Your task to perform on an android device: Search for pizza restaurants on Maps Image 0: 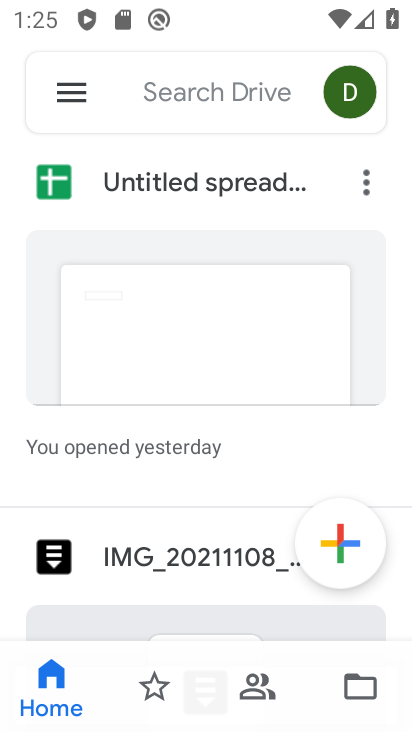
Step 0: press back button
Your task to perform on an android device: Search for pizza restaurants on Maps Image 1: 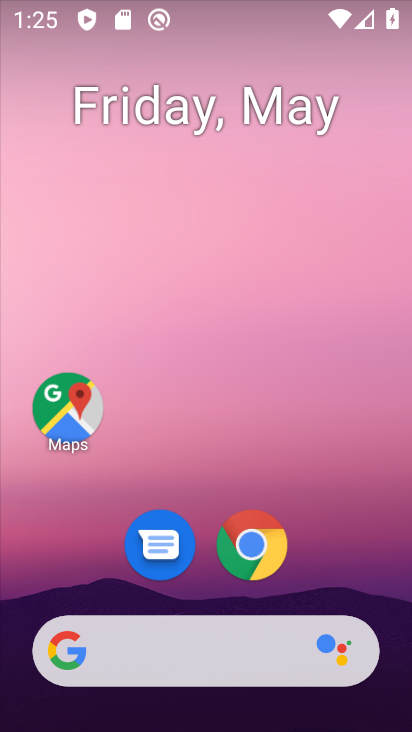
Step 1: drag from (337, 620) to (218, 43)
Your task to perform on an android device: Search for pizza restaurants on Maps Image 2: 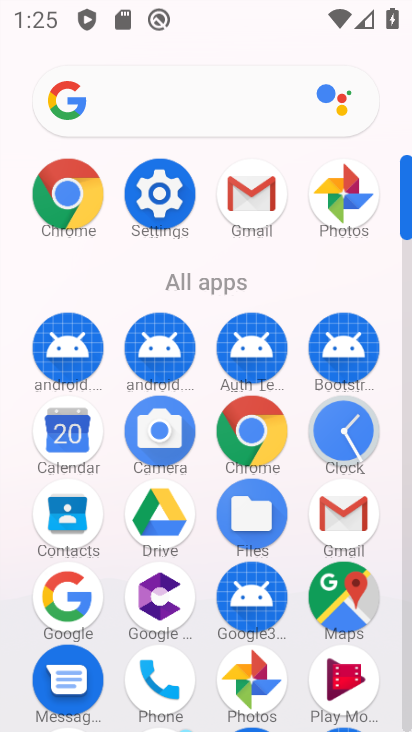
Step 2: click (335, 590)
Your task to perform on an android device: Search for pizza restaurants on Maps Image 3: 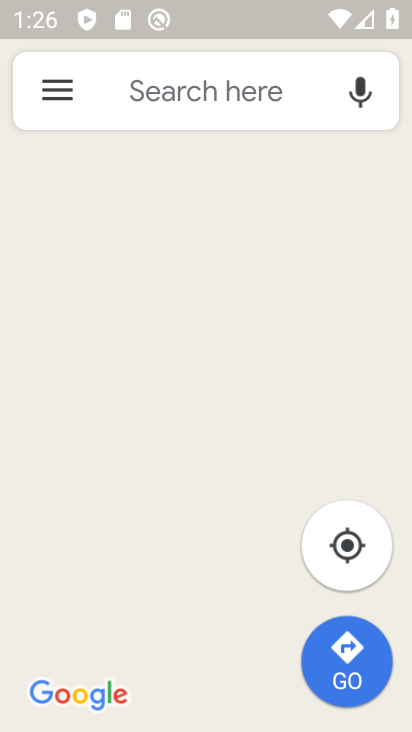
Step 3: drag from (193, 601) to (174, 83)
Your task to perform on an android device: Search for pizza restaurants on Maps Image 4: 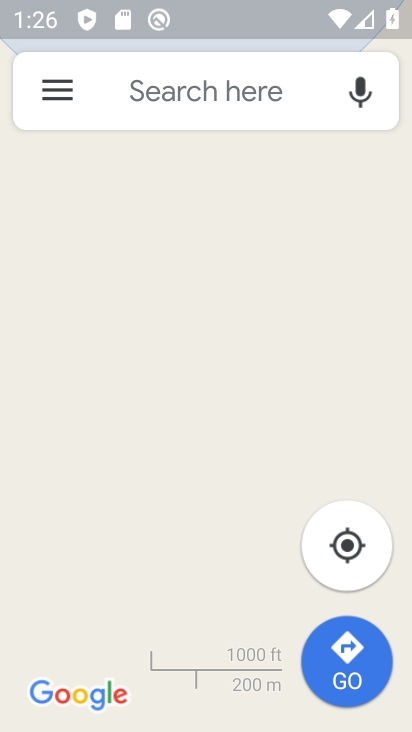
Step 4: click (123, 78)
Your task to perform on an android device: Search for pizza restaurants on Maps Image 5: 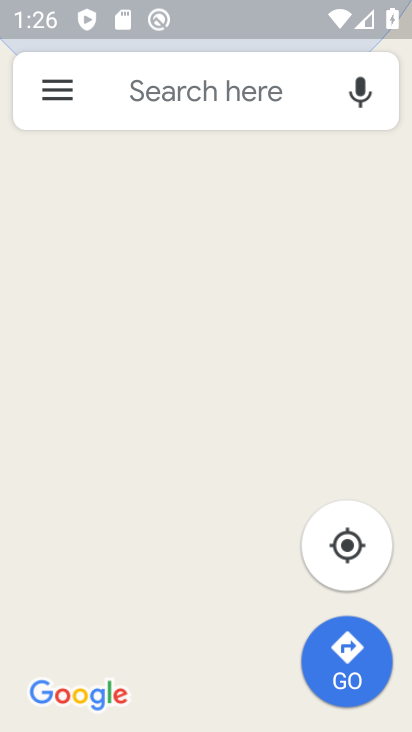
Step 5: click (136, 93)
Your task to perform on an android device: Search for pizza restaurants on Maps Image 6: 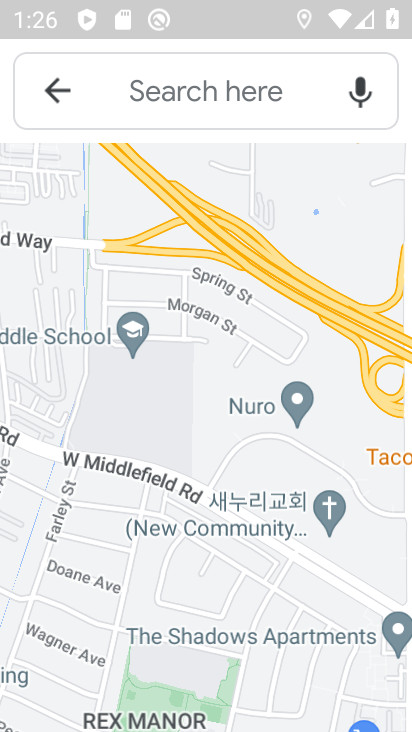
Step 6: click (135, 95)
Your task to perform on an android device: Search for pizza restaurants on Maps Image 7: 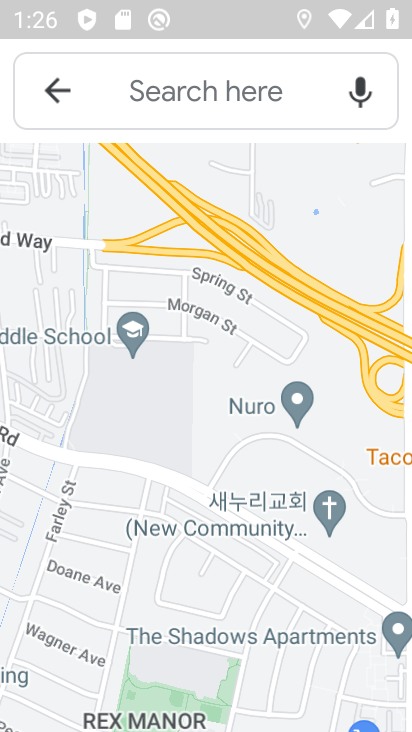
Step 7: click (135, 95)
Your task to perform on an android device: Search for pizza restaurants on Maps Image 8: 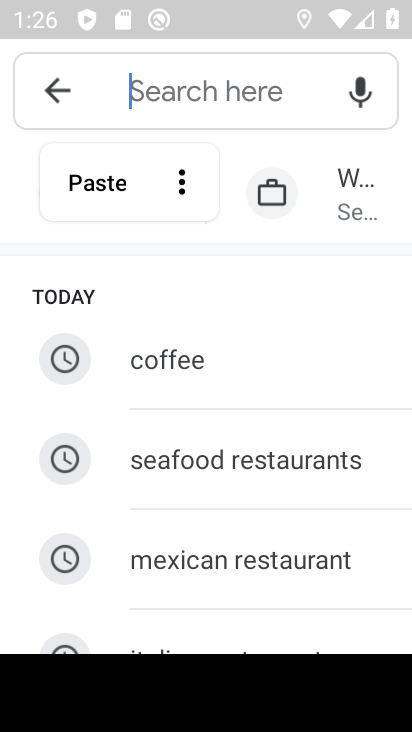
Step 8: type "pizza restaurants"
Your task to perform on an android device: Search for pizza restaurants on Maps Image 9: 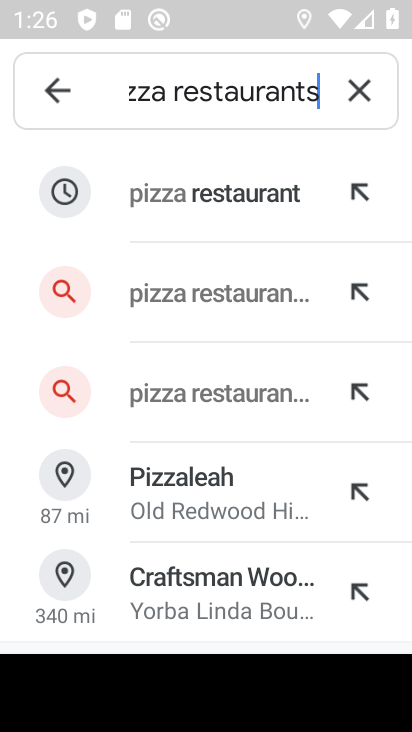
Step 9: click (256, 183)
Your task to perform on an android device: Search for pizza restaurants on Maps Image 10: 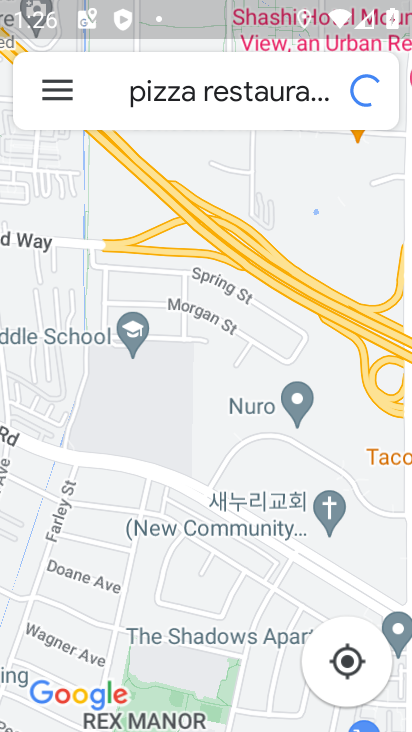
Step 10: task complete